Your task to perform on an android device: Find coffee shops on Maps Image 0: 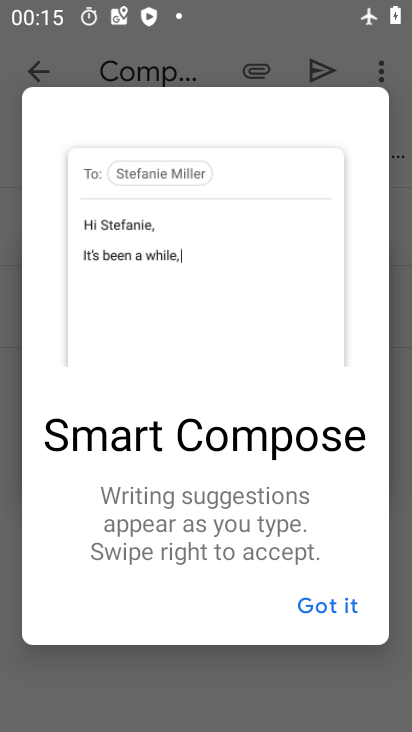
Step 0: press home button
Your task to perform on an android device: Find coffee shops on Maps Image 1: 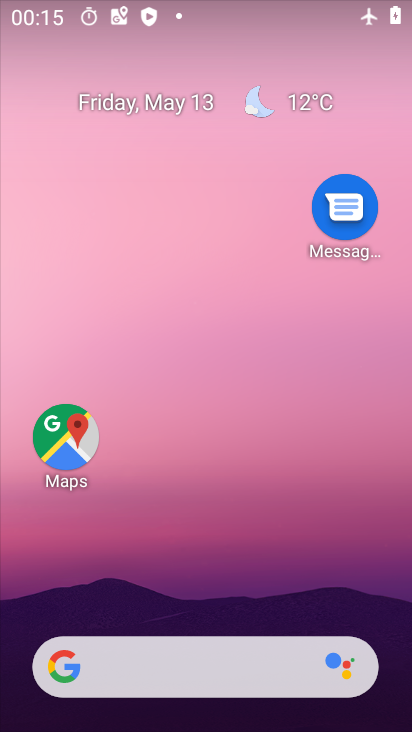
Step 1: drag from (298, 599) to (201, 230)
Your task to perform on an android device: Find coffee shops on Maps Image 2: 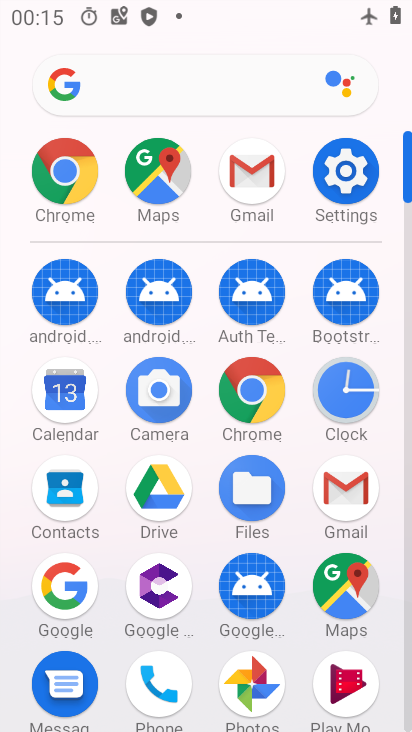
Step 2: drag from (300, 229) to (317, 730)
Your task to perform on an android device: Find coffee shops on Maps Image 3: 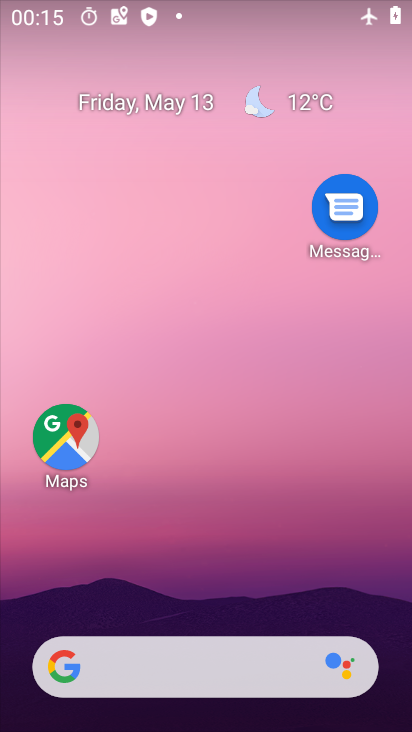
Step 3: drag from (301, 5) to (349, 711)
Your task to perform on an android device: Find coffee shops on Maps Image 4: 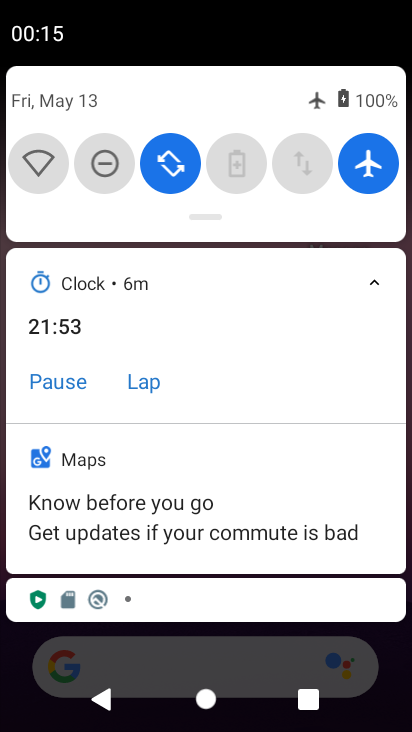
Step 4: click (383, 170)
Your task to perform on an android device: Find coffee shops on Maps Image 5: 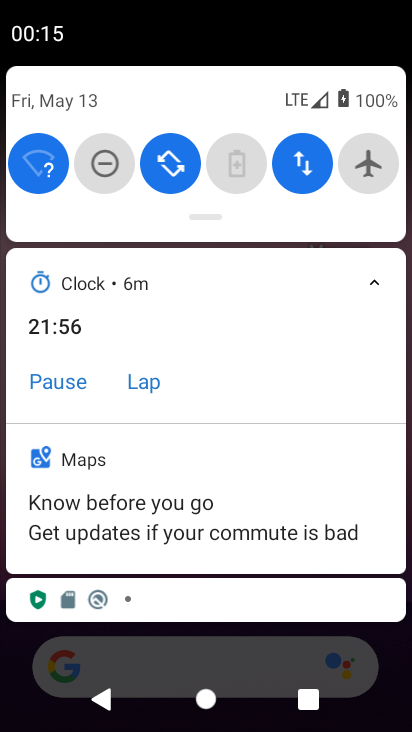
Step 5: drag from (302, 649) to (392, 131)
Your task to perform on an android device: Find coffee shops on Maps Image 6: 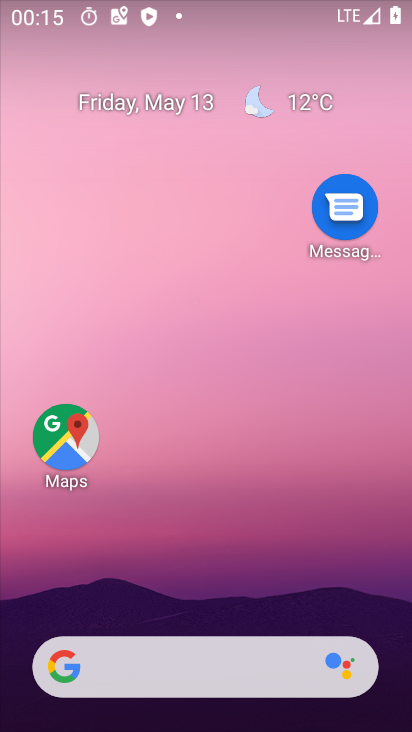
Step 6: drag from (353, 528) to (355, 238)
Your task to perform on an android device: Find coffee shops on Maps Image 7: 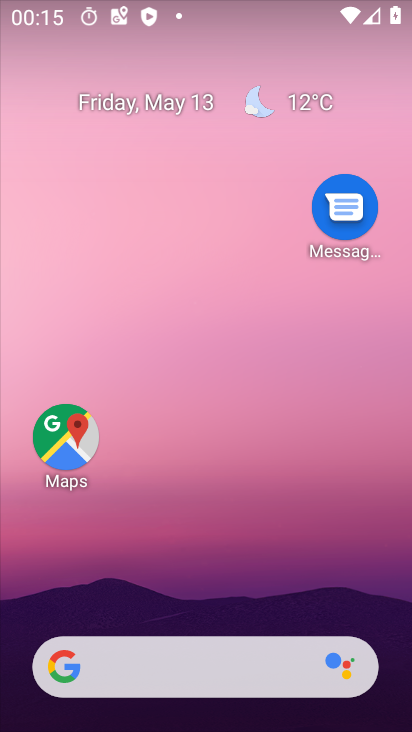
Step 7: click (34, 422)
Your task to perform on an android device: Find coffee shops on Maps Image 8: 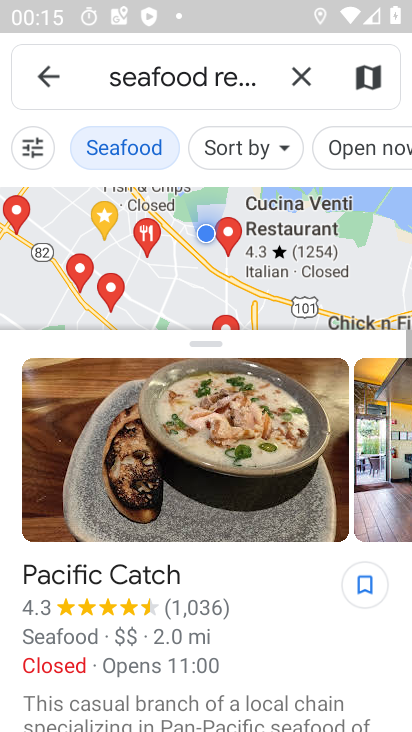
Step 8: click (308, 69)
Your task to perform on an android device: Find coffee shops on Maps Image 9: 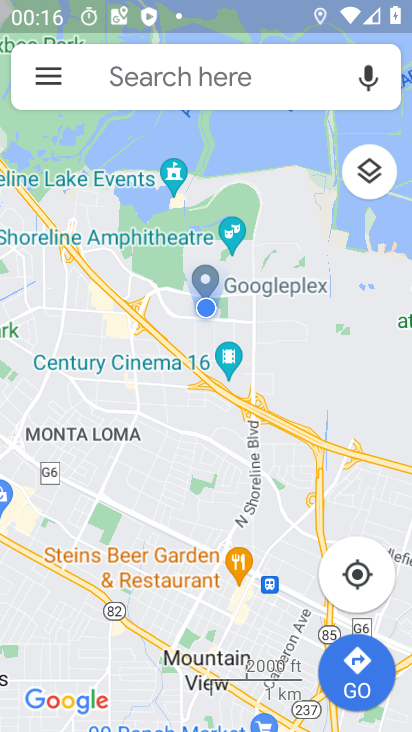
Step 9: type "coffee shops "
Your task to perform on an android device: Find coffee shops on Maps Image 10: 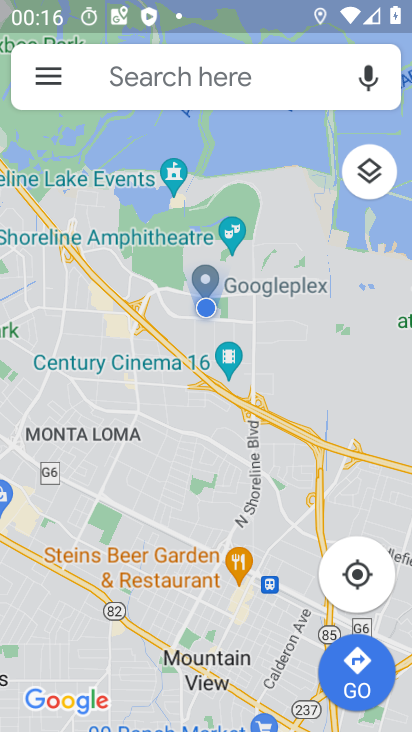
Step 10: click (322, 72)
Your task to perform on an android device: Find coffee shops on Maps Image 11: 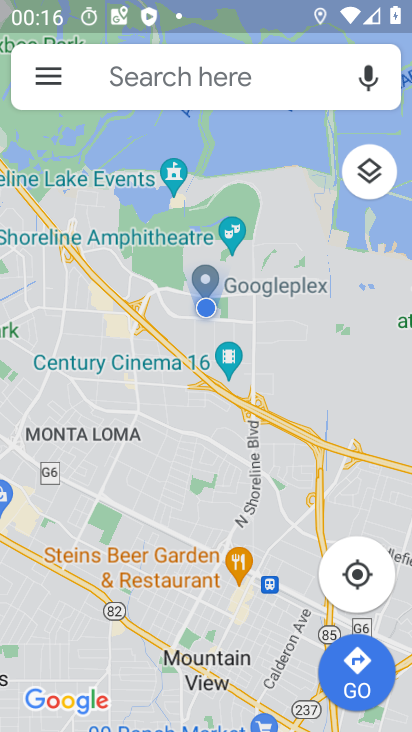
Step 11: click (322, 72)
Your task to perform on an android device: Find coffee shops on Maps Image 12: 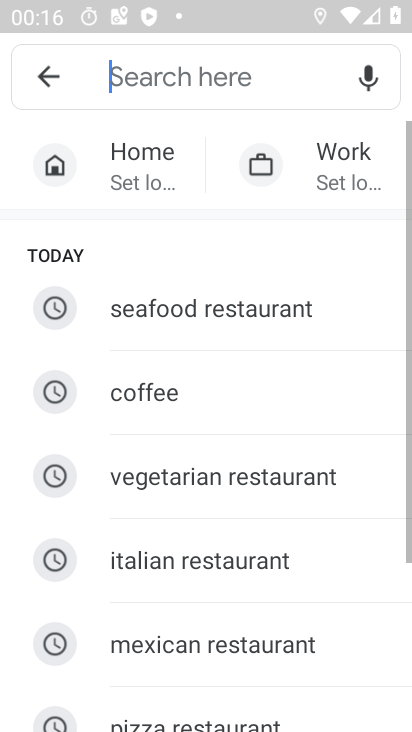
Step 12: click (322, 72)
Your task to perform on an android device: Find coffee shops on Maps Image 13: 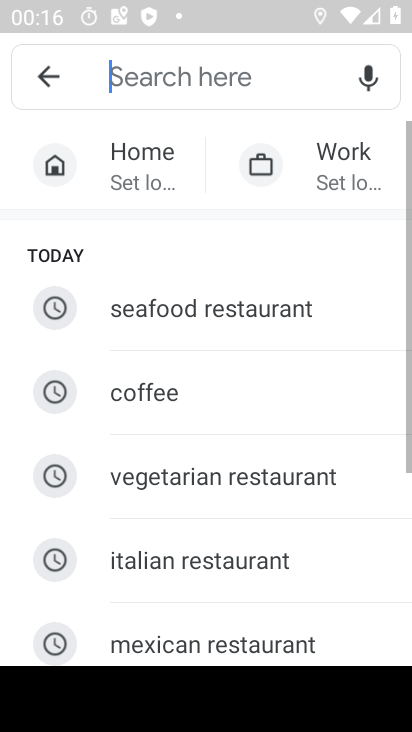
Step 13: click (322, 72)
Your task to perform on an android device: Find coffee shops on Maps Image 14: 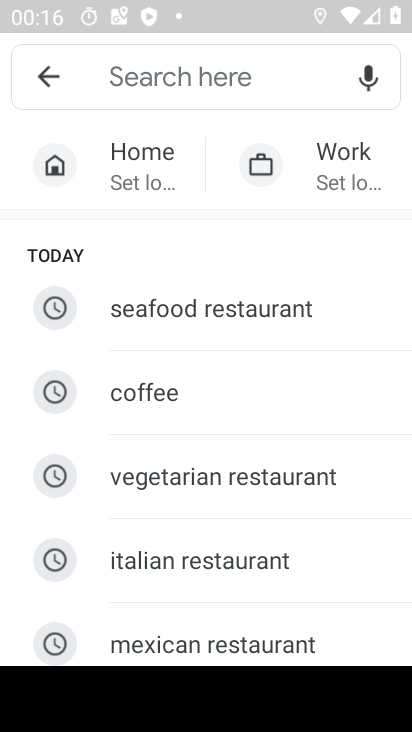
Step 14: type "coffee shops "
Your task to perform on an android device: Find coffee shops on Maps Image 15: 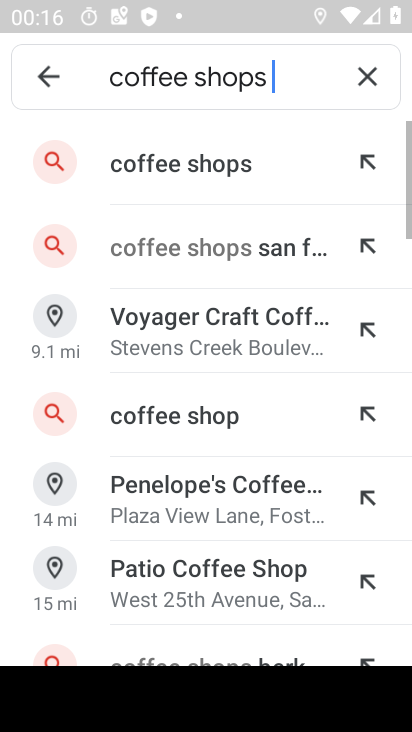
Step 15: click (207, 184)
Your task to perform on an android device: Find coffee shops on Maps Image 16: 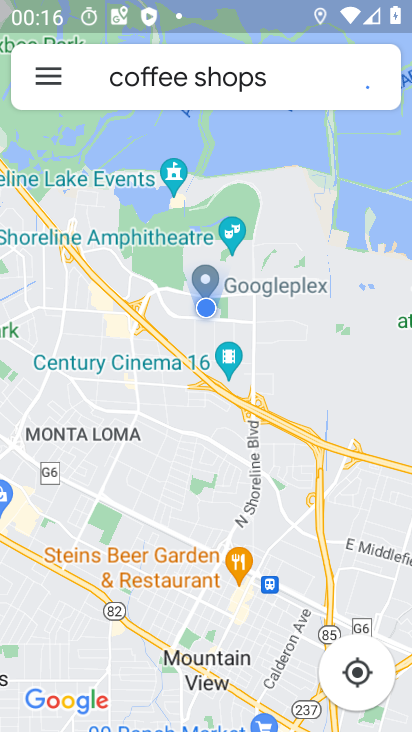
Step 16: task complete